Your task to perform on an android device: see creations saved in the google photos Image 0: 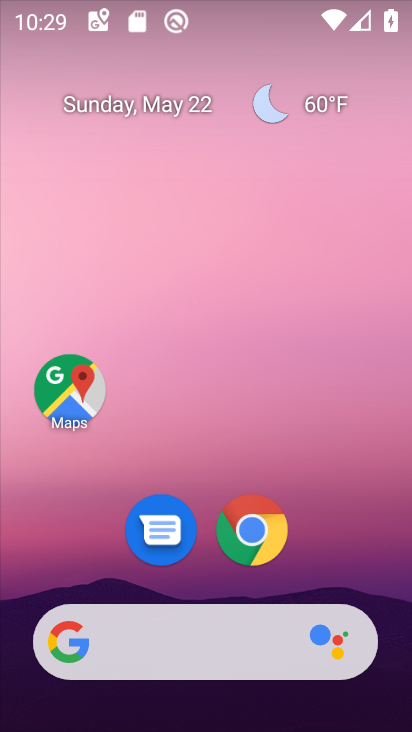
Step 0: drag from (387, 698) to (373, 256)
Your task to perform on an android device: see creations saved in the google photos Image 1: 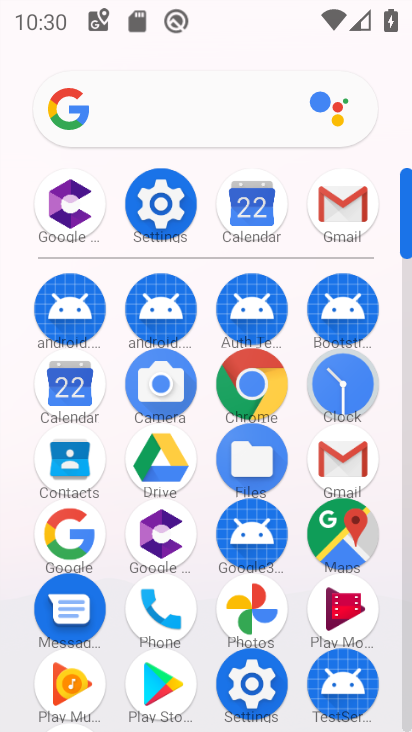
Step 1: click (271, 606)
Your task to perform on an android device: see creations saved in the google photos Image 2: 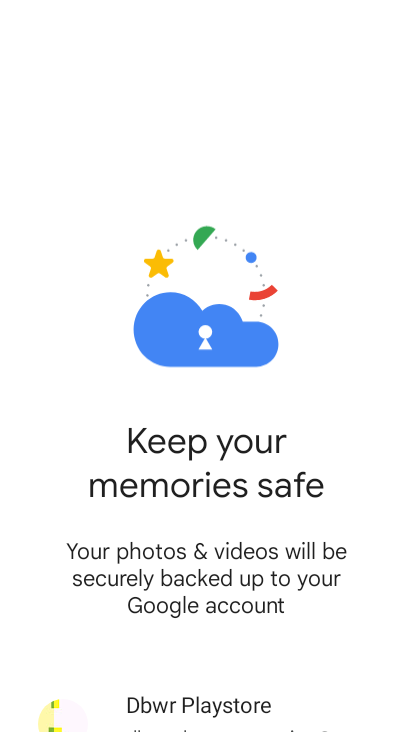
Step 2: press home button
Your task to perform on an android device: see creations saved in the google photos Image 3: 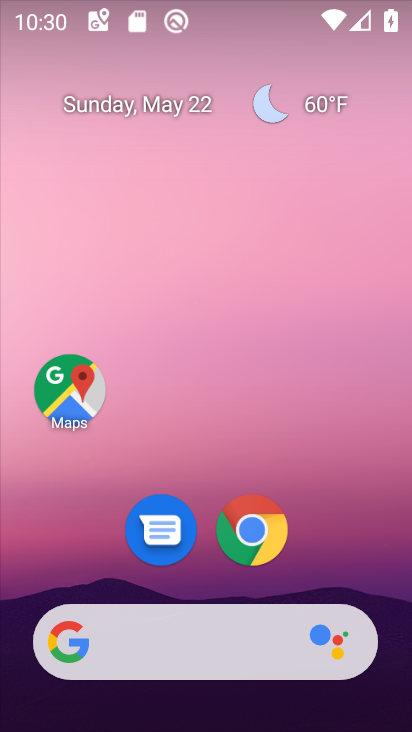
Step 3: drag from (394, 654) to (382, 276)
Your task to perform on an android device: see creations saved in the google photos Image 4: 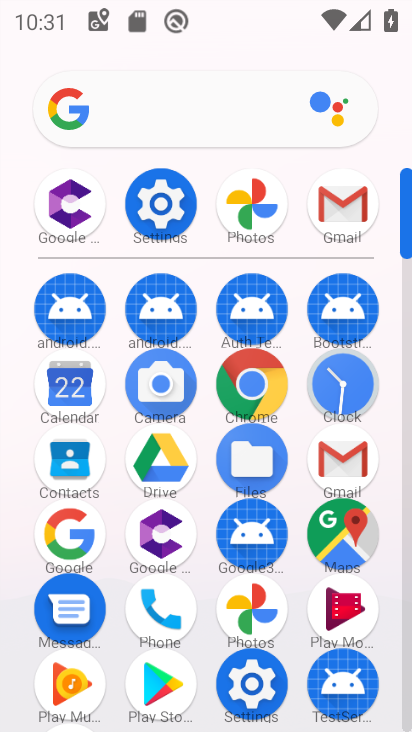
Step 4: click (259, 206)
Your task to perform on an android device: see creations saved in the google photos Image 5: 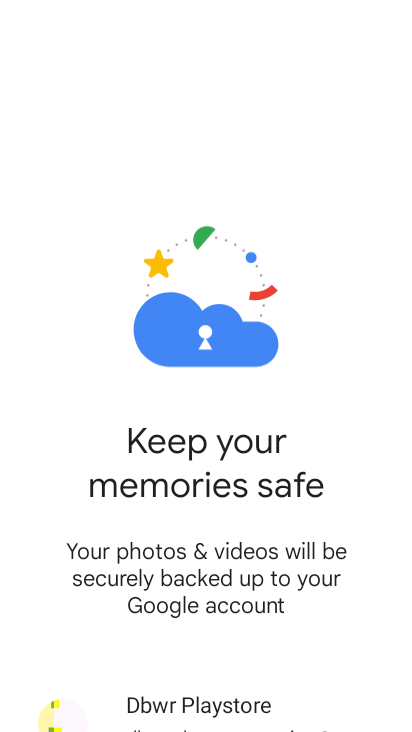
Step 5: press home button
Your task to perform on an android device: see creations saved in the google photos Image 6: 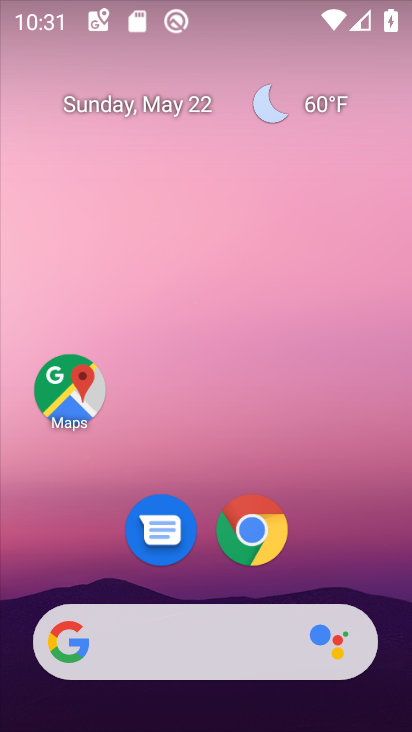
Step 6: drag from (389, 692) to (383, 219)
Your task to perform on an android device: see creations saved in the google photos Image 7: 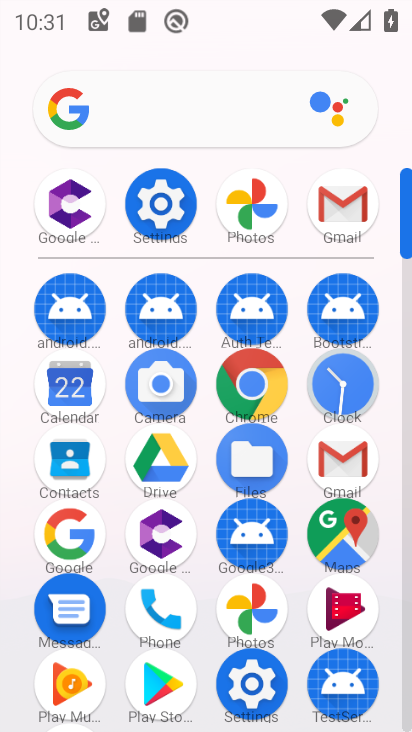
Step 7: click (253, 200)
Your task to perform on an android device: see creations saved in the google photos Image 8: 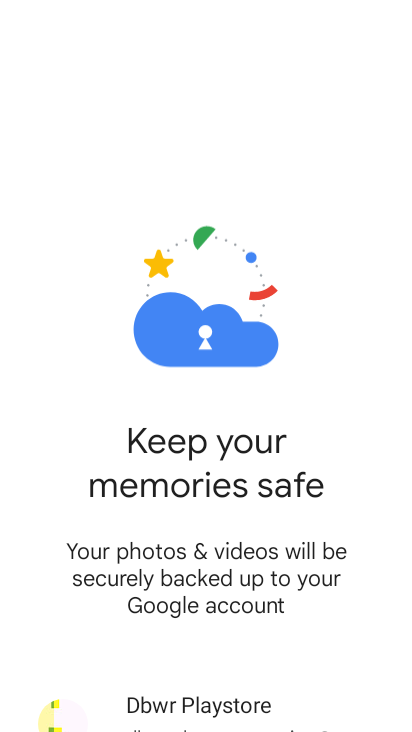
Step 8: task complete